Your task to perform on an android device: Check the new Jordans on Nike. Image 0: 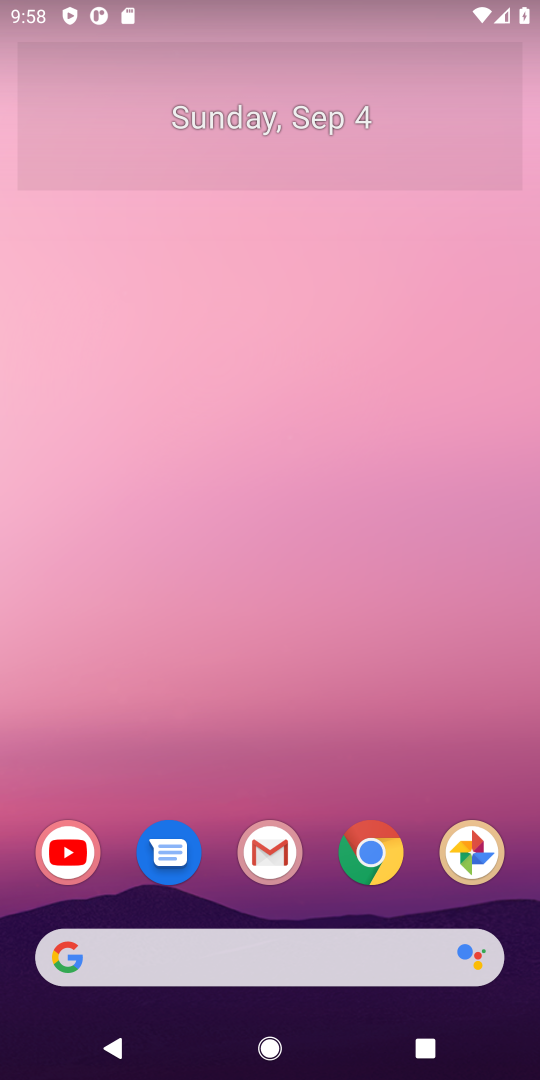
Step 0: drag from (418, 576) to (303, 152)
Your task to perform on an android device: Check the new Jordans on Nike. Image 1: 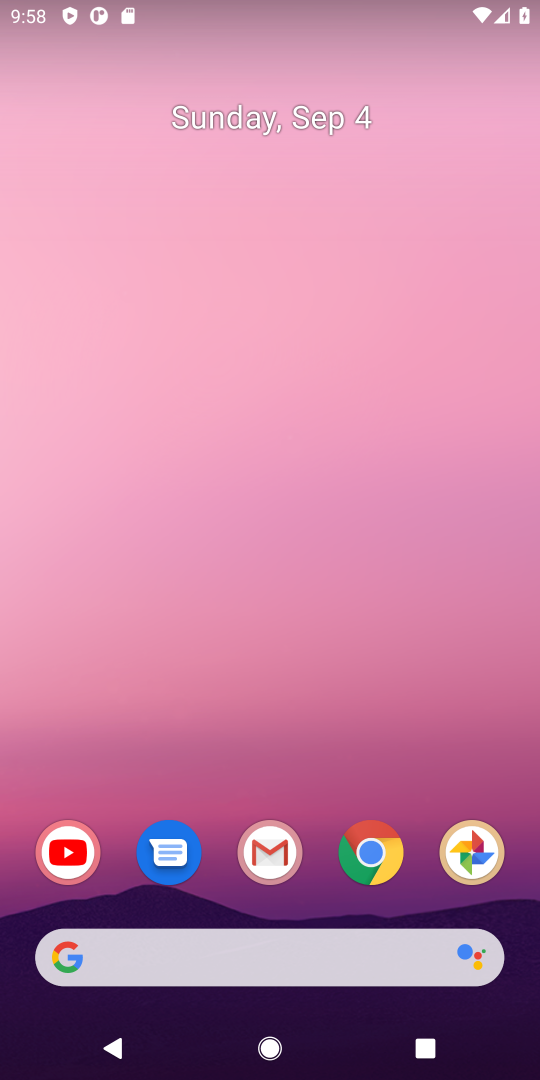
Step 1: drag from (367, 514) to (224, 33)
Your task to perform on an android device: Check the new Jordans on Nike. Image 2: 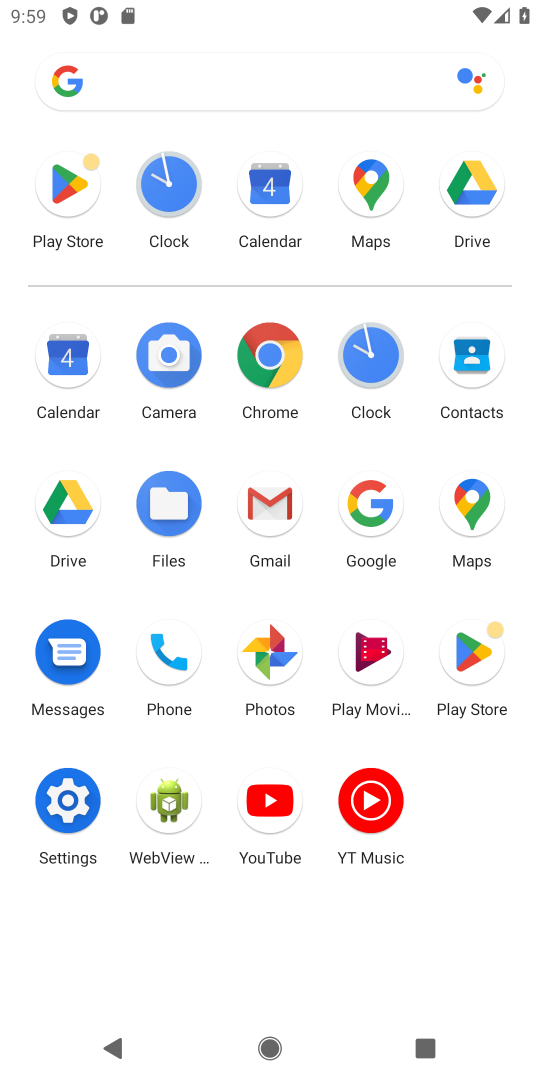
Step 2: click (367, 507)
Your task to perform on an android device: Check the new Jordans on Nike. Image 3: 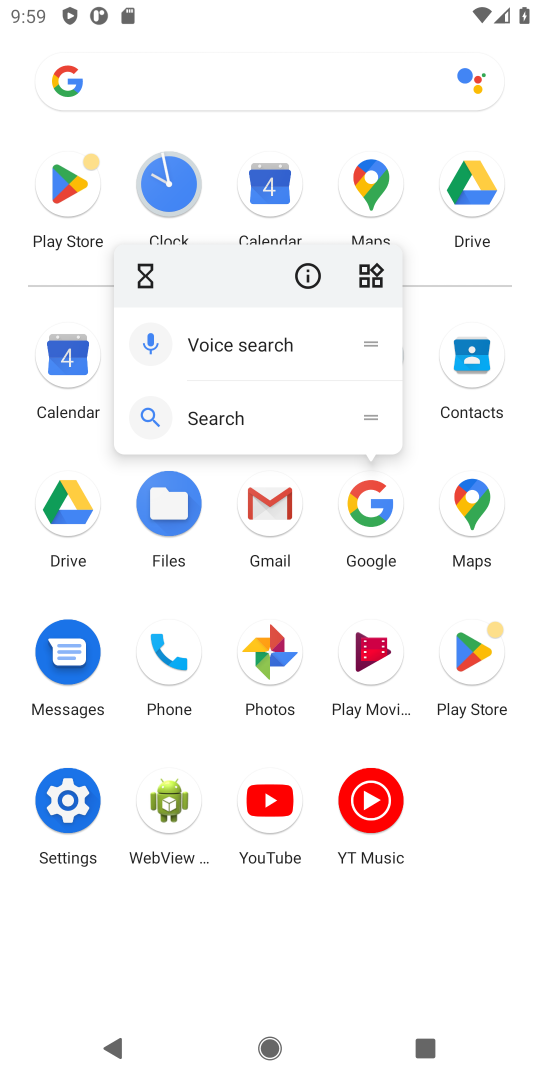
Step 3: click (387, 521)
Your task to perform on an android device: Check the new Jordans on Nike. Image 4: 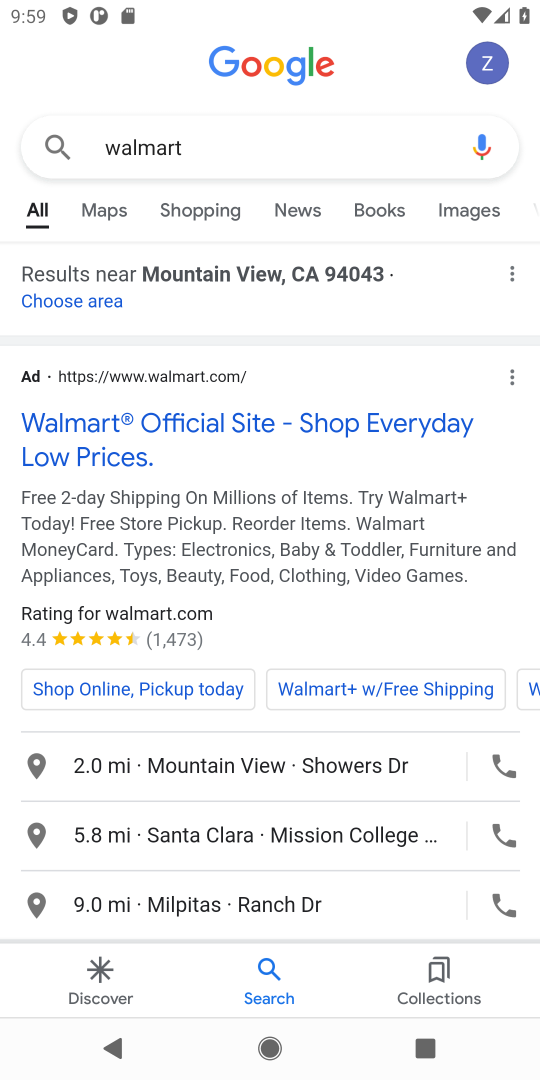
Step 4: press back button
Your task to perform on an android device: Check the new Jordans on Nike. Image 5: 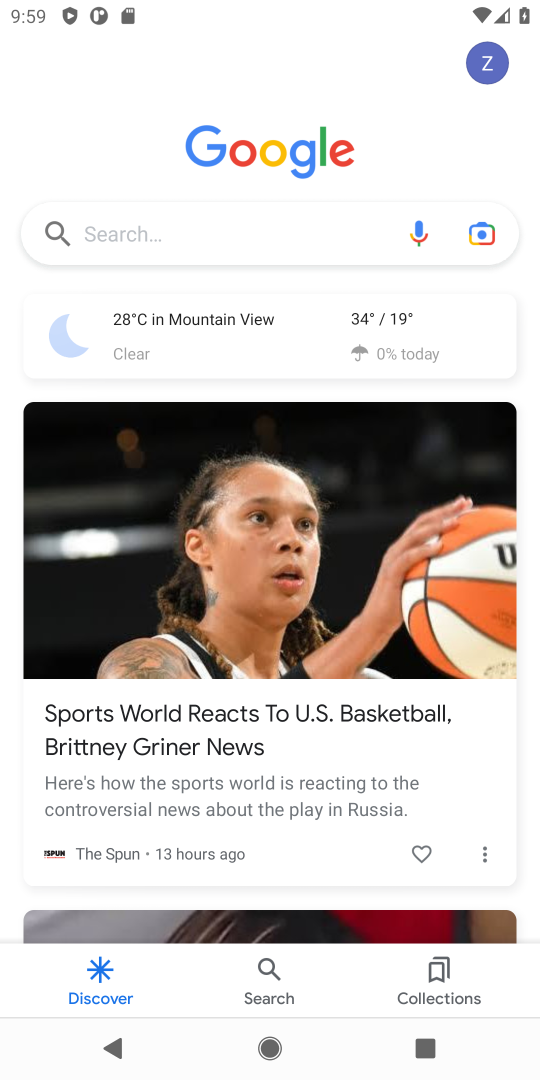
Step 5: click (207, 249)
Your task to perform on an android device: Check the new Jordans on Nike. Image 6: 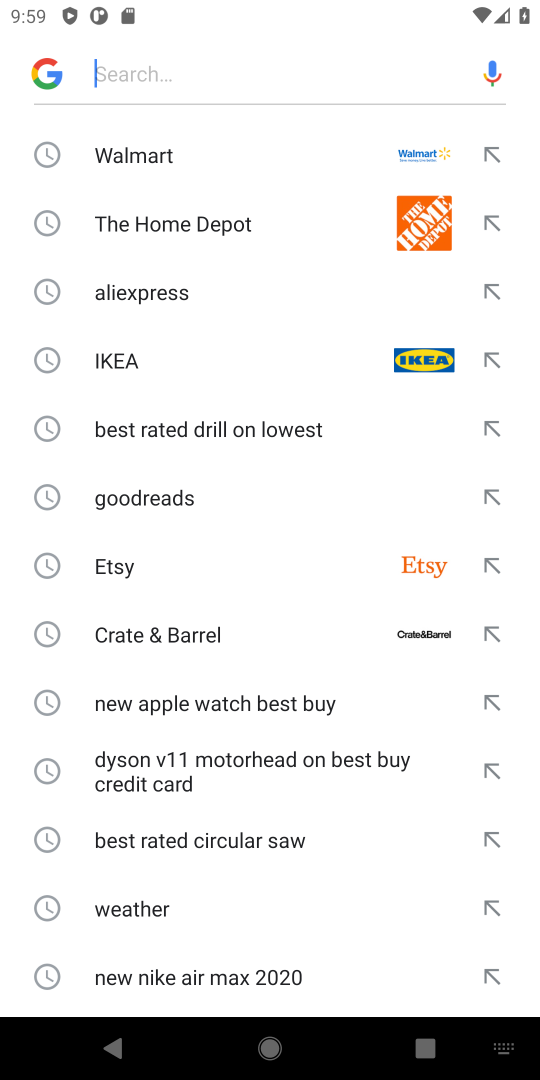
Step 6: type "new Jordans on Nike"
Your task to perform on an android device: Check the new Jordans on Nike. Image 7: 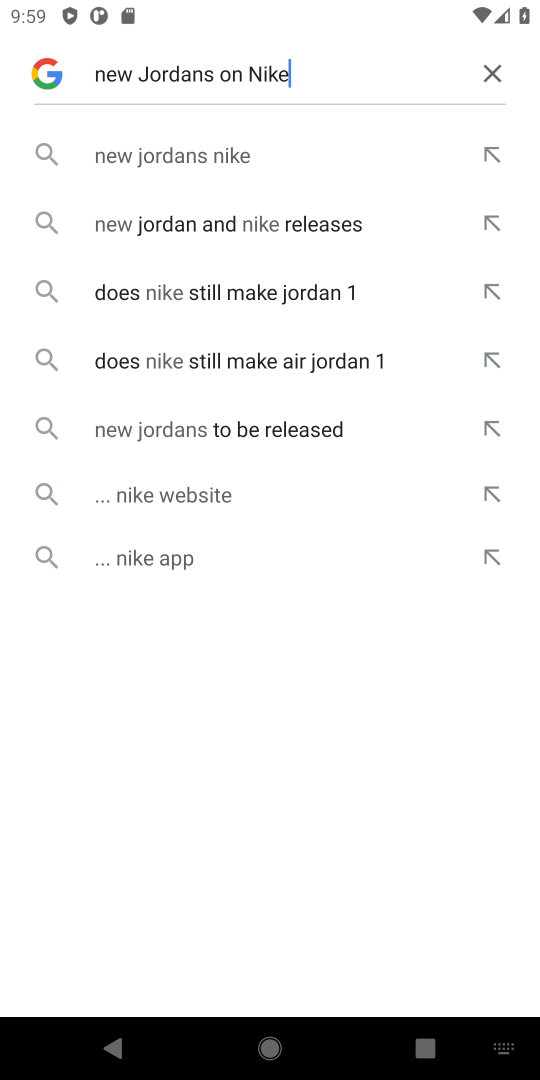
Step 7: click (247, 149)
Your task to perform on an android device: Check the new Jordans on Nike. Image 8: 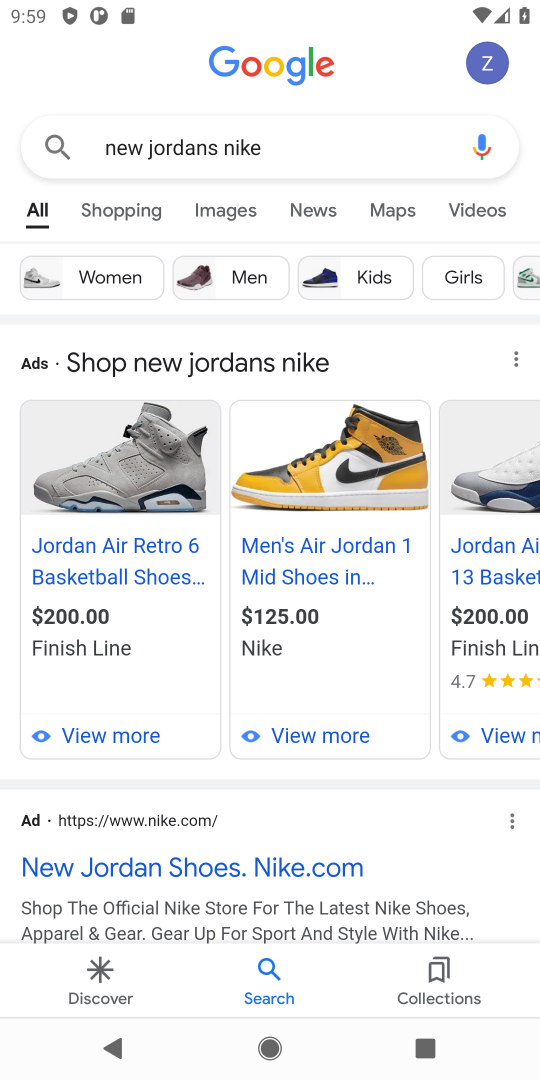
Step 8: task complete